Your task to perform on an android device: Open Google Maps Image 0: 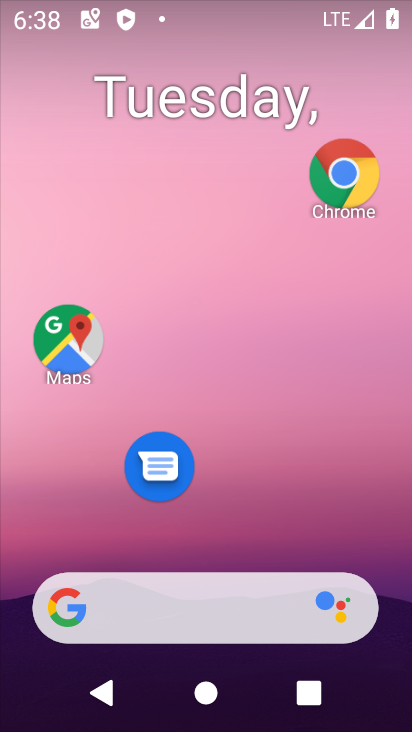
Step 0: click (66, 342)
Your task to perform on an android device: Open Google Maps Image 1: 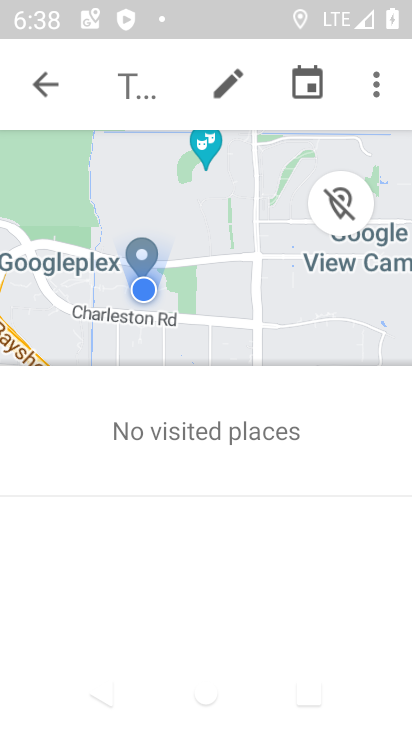
Step 1: task complete